Your task to perform on an android device: Go to accessibility settings Image 0: 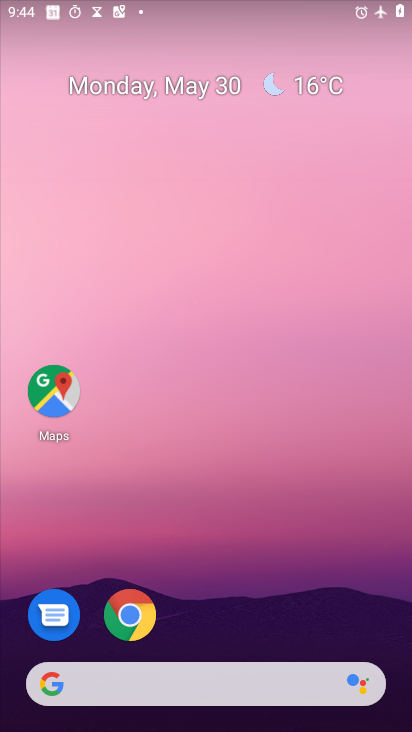
Step 0: drag from (260, 610) to (250, 27)
Your task to perform on an android device: Go to accessibility settings Image 1: 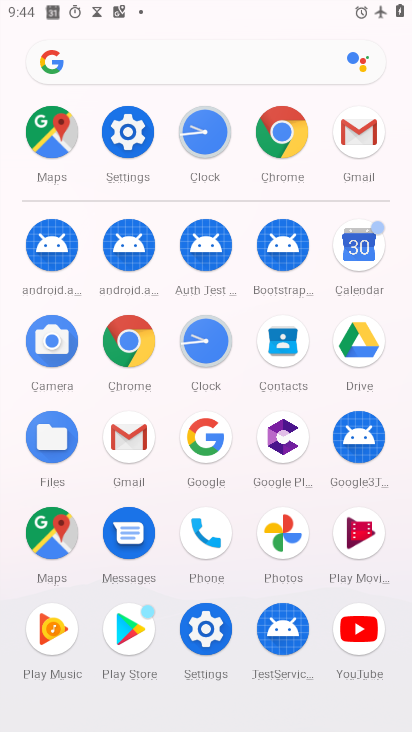
Step 1: click (123, 124)
Your task to perform on an android device: Go to accessibility settings Image 2: 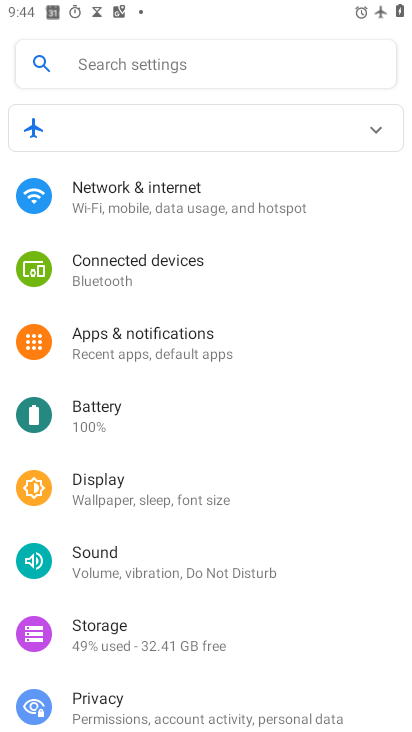
Step 2: drag from (228, 593) to (241, 207)
Your task to perform on an android device: Go to accessibility settings Image 3: 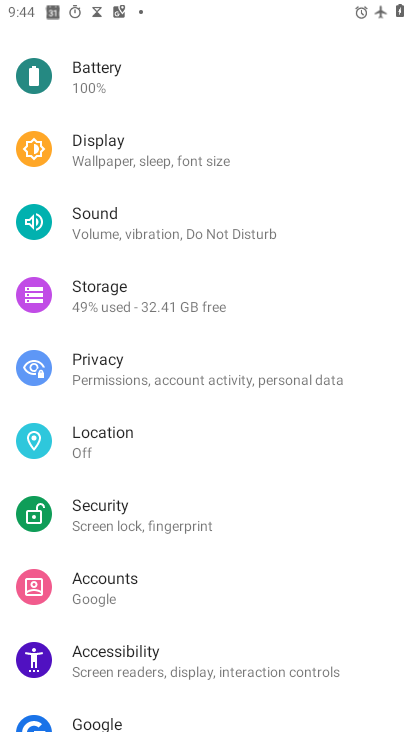
Step 3: drag from (181, 609) to (257, 214)
Your task to perform on an android device: Go to accessibility settings Image 4: 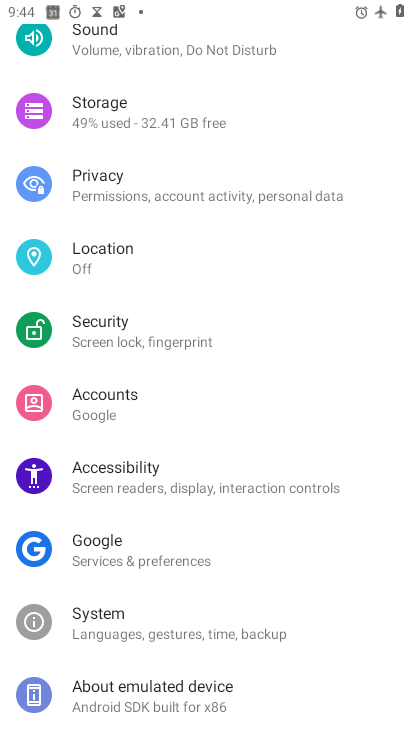
Step 4: click (124, 475)
Your task to perform on an android device: Go to accessibility settings Image 5: 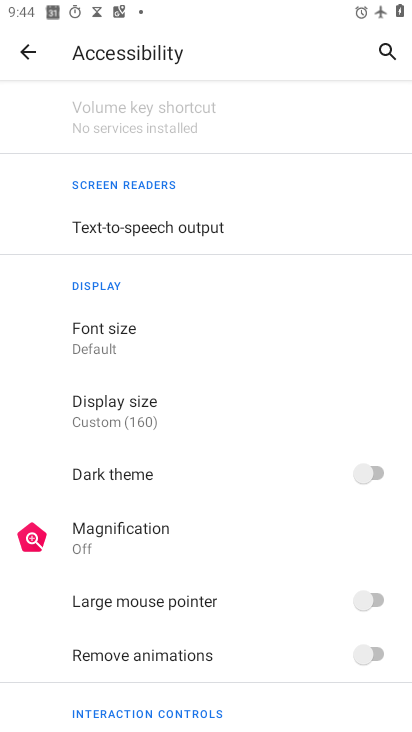
Step 5: task complete